Your task to perform on an android device: Open the stopwatch Image 0: 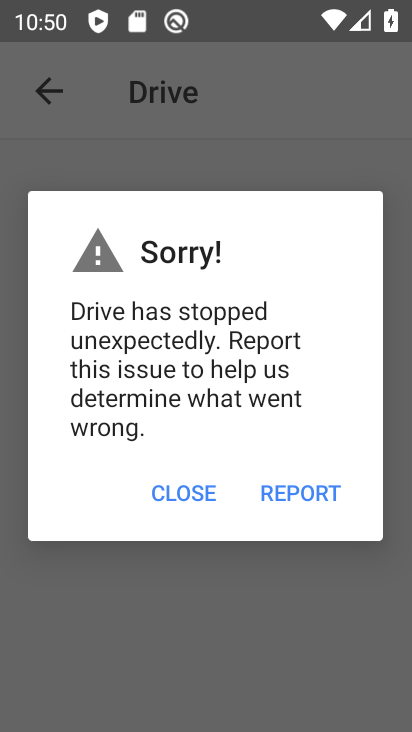
Step 0: click (169, 483)
Your task to perform on an android device: Open the stopwatch Image 1: 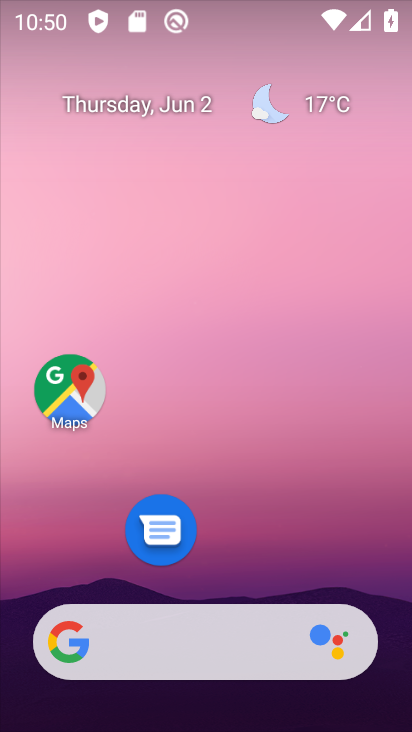
Step 1: drag from (215, 555) to (169, 338)
Your task to perform on an android device: Open the stopwatch Image 2: 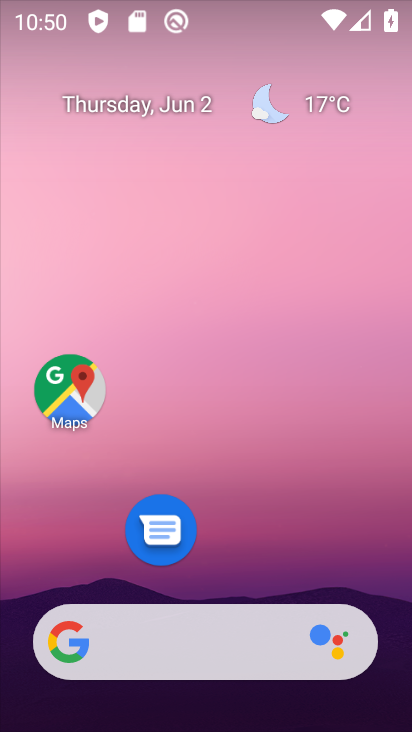
Step 2: drag from (268, 696) to (196, 224)
Your task to perform on an android device: Open the stopwatch Image 3: 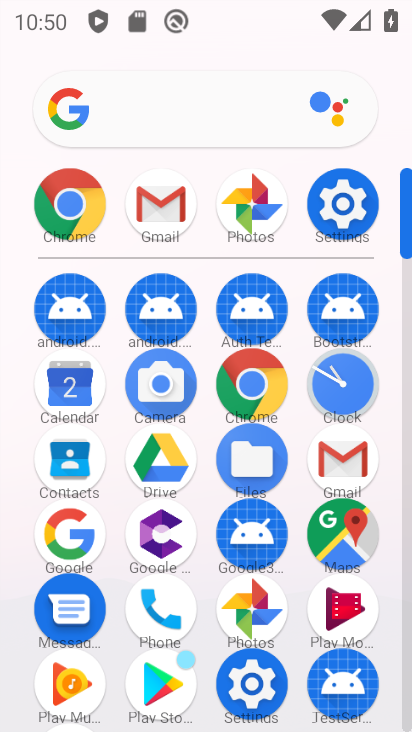
Step 3: click (330, 388)
Your task to perform on an android device: Open the stopwatch Image 4: 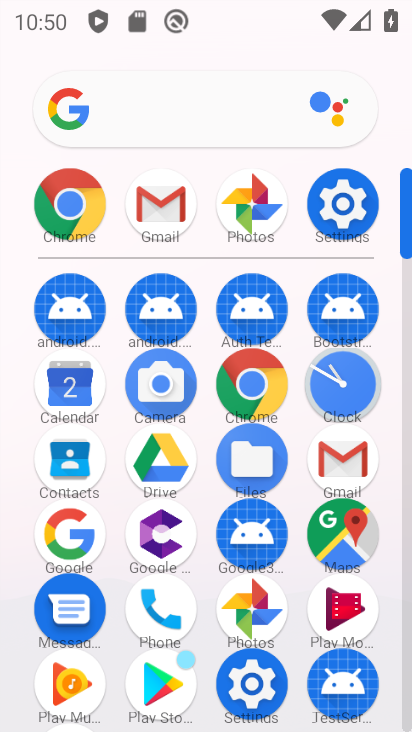
Step 4: click (331, 387)
Your task to perform on an android device: Open the stopwatch Image 5: 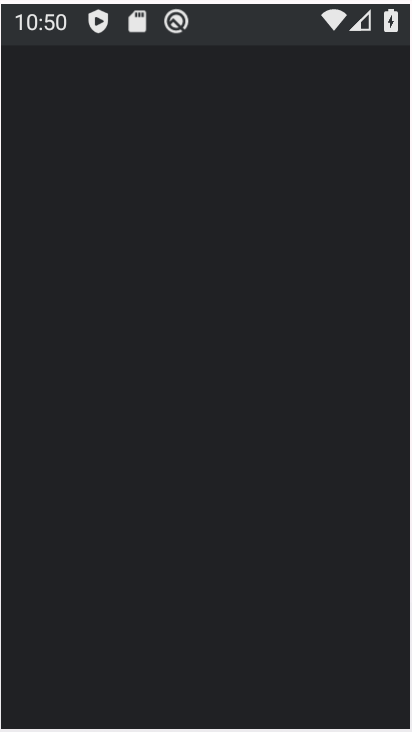
Step 5: click (327, 391)
Your task to perform on an android device: Open the stopwatch Image 6: 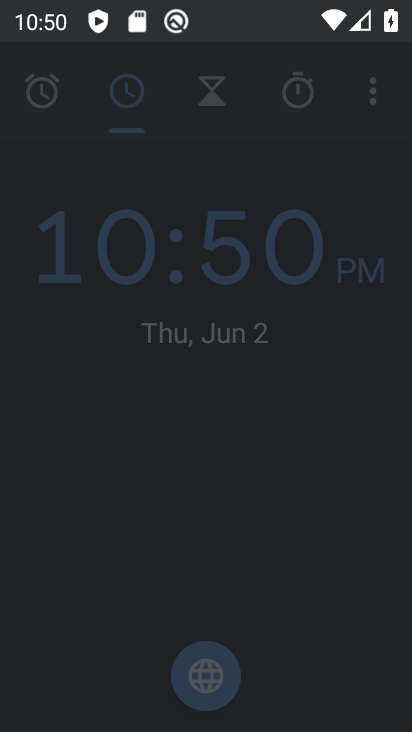
Step 6: click (327, 391)
Your task to perform on an android device: Open the stopwatch Image 7: 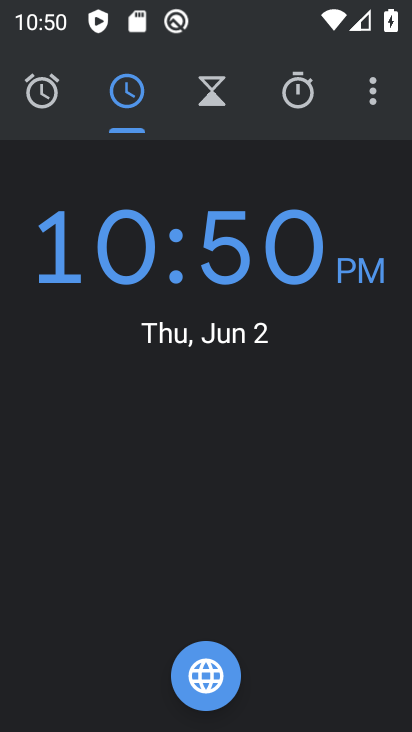
Step 7: click (305, 99)
Your task to perform on an android device: Open the stopwatch Image 8: 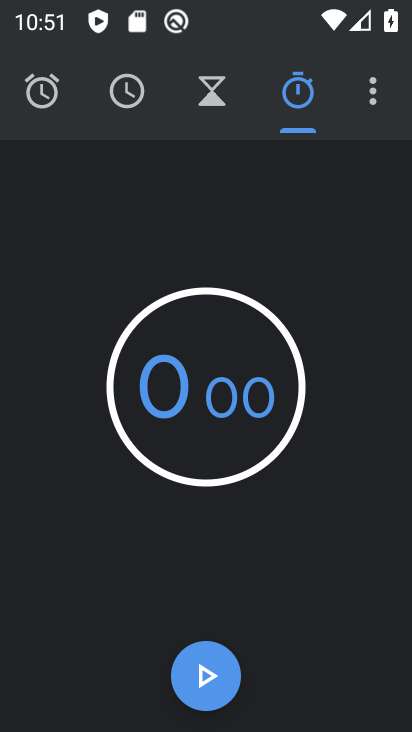
Step 8: task complete